Your task to perform on an android device: change notifications settings Image 0: 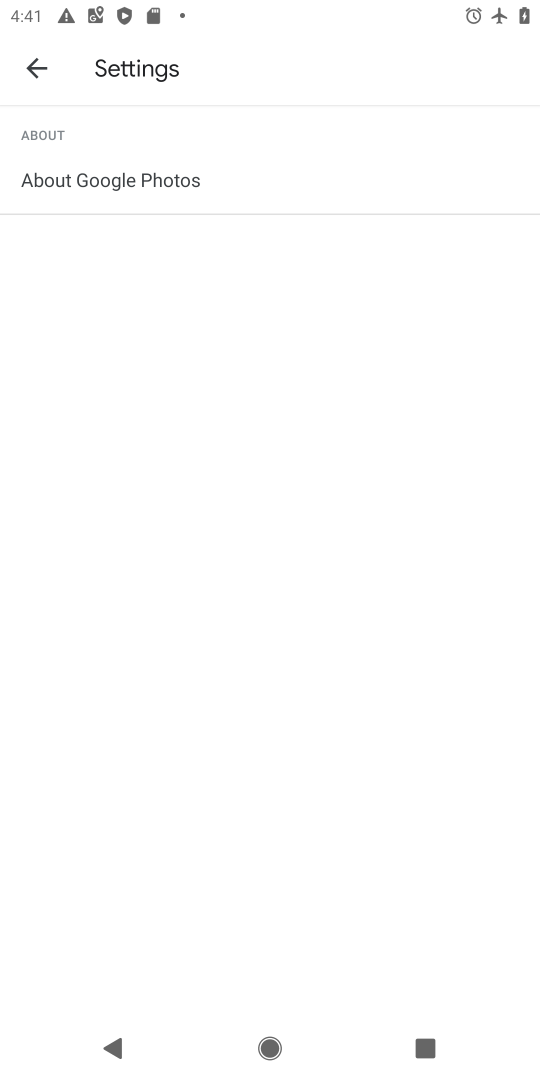
Step 0: press home button
Your task to perform on an android device: change notifications settings Image 1: 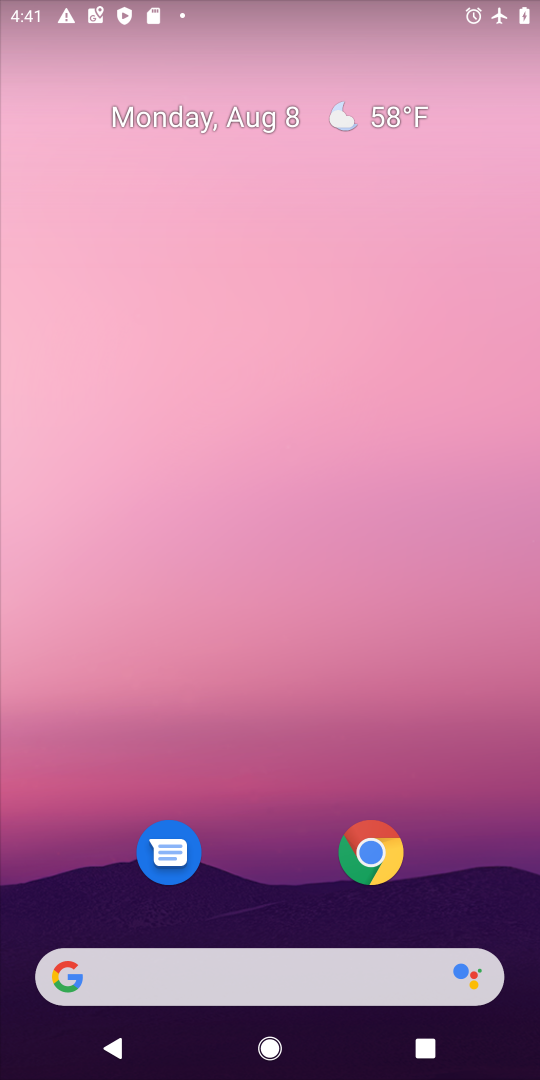
Step 1: drag from (259, 882) to (384, 97)
Your task to perform on an android device: change notifications settings Image 2: 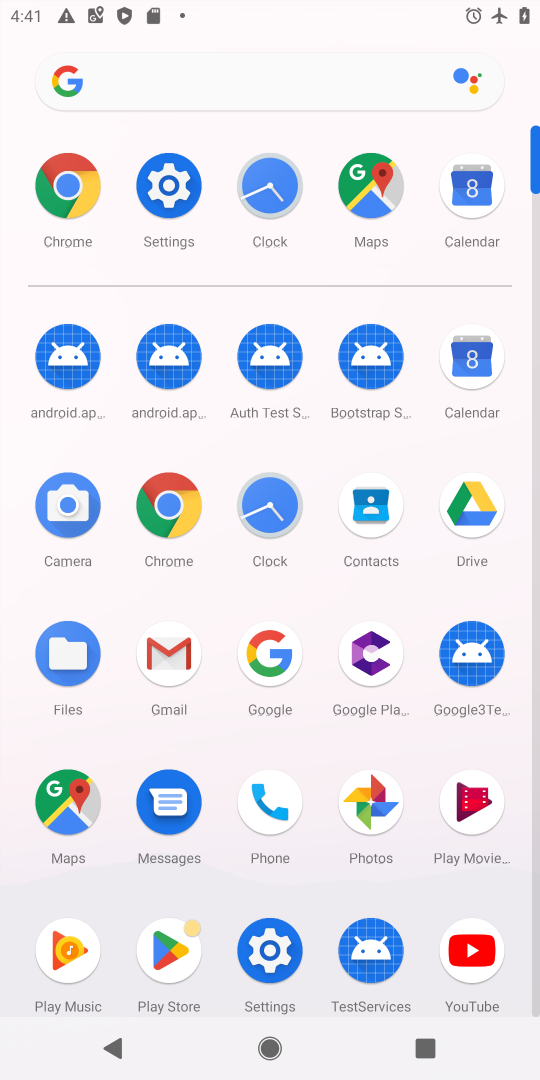
Step 2: click (274, 969)
Your task to perform on an android device: change notifications settings Image 3: 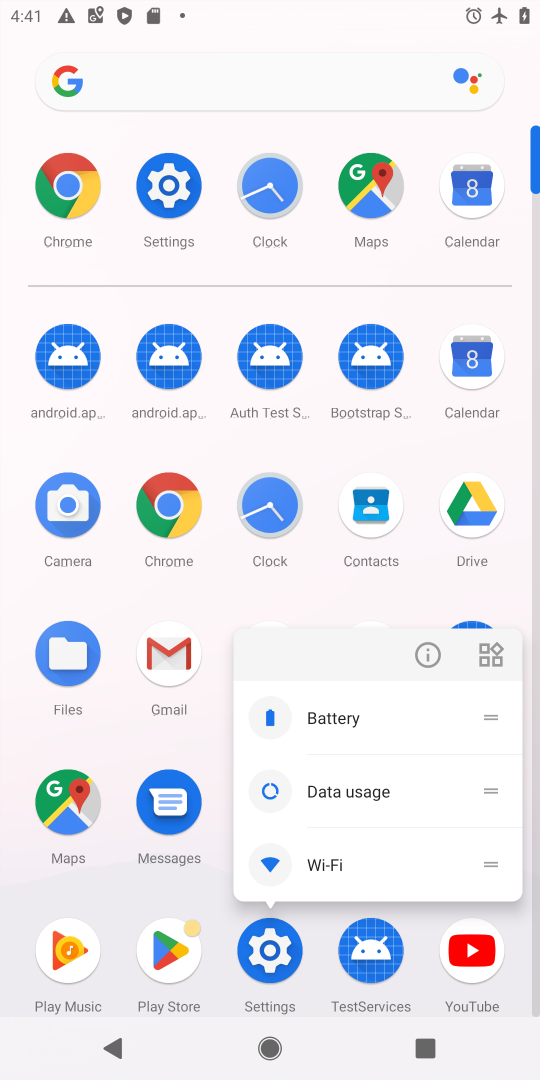
Step 3: click (274, 964)
Your task to perform on an android device: change notifications settings Image 4: 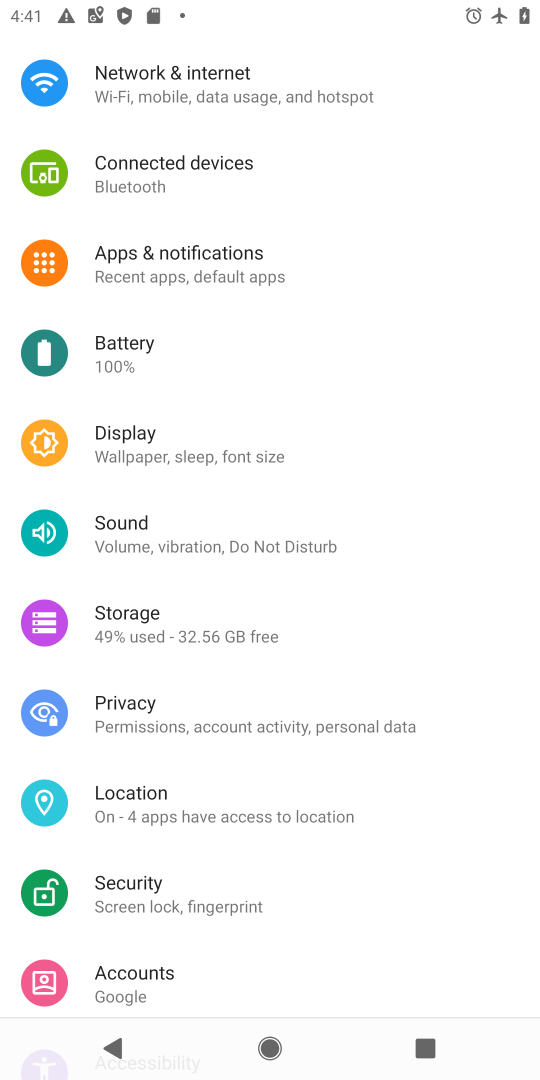
Step 4: click (247, 249)
Your task to perform on an android device: change notifications settings Image 5: 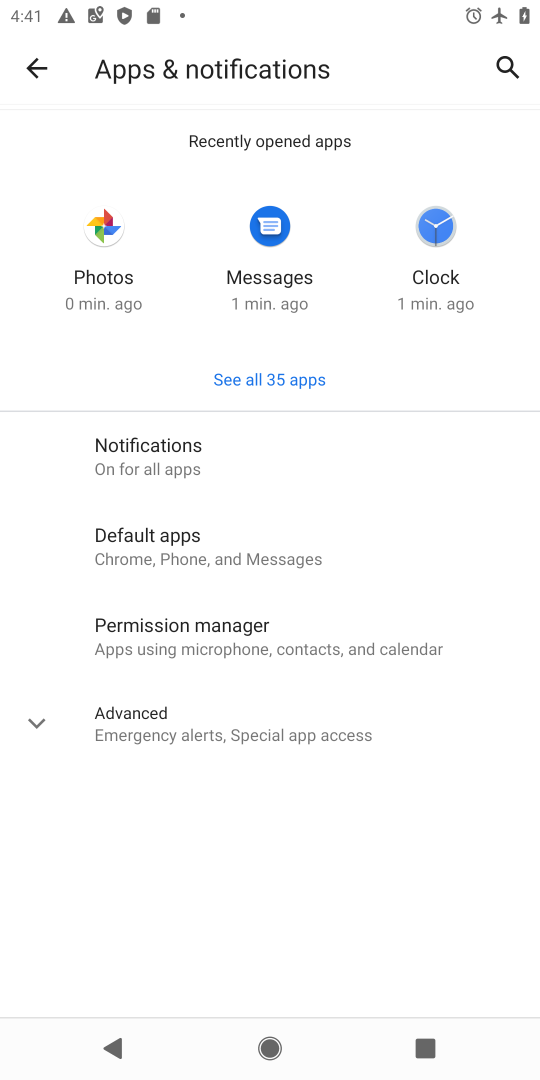
Step 5: click (176, 474)
Your task to perform on an android device: change notifications settings Image 6: 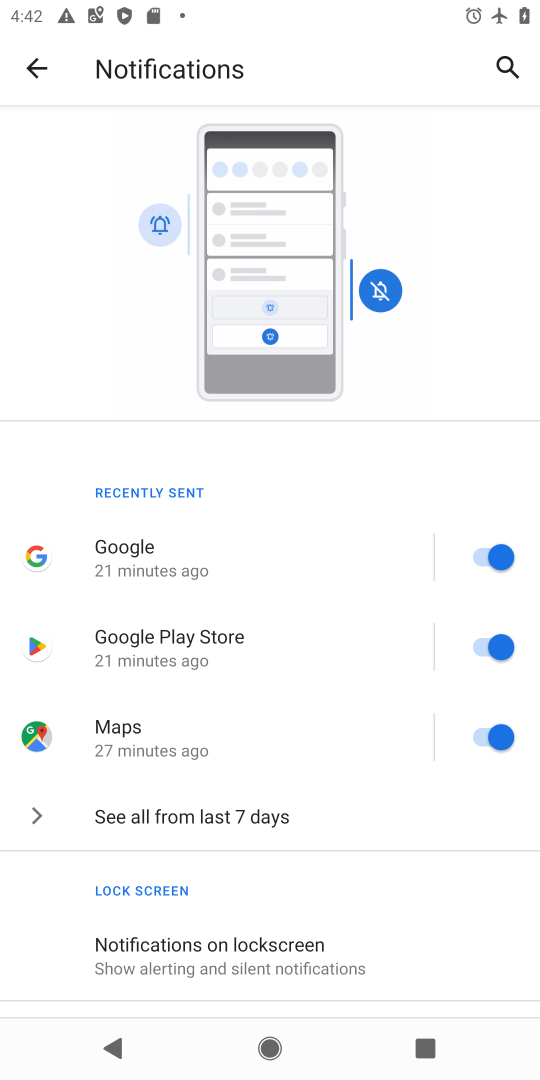
Step 6: task complete